Your task to perform on an android device: stop showing notifications on the lock screen Image 0: 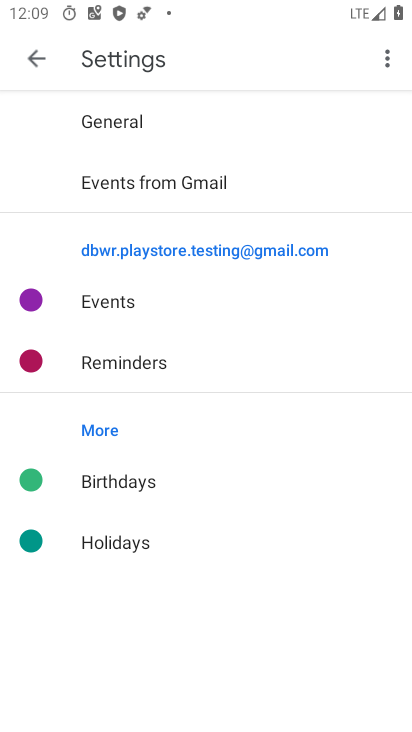
Step 0: press home button
Your task to perform on an android device: stop showing notifications on the lock screen Image 1: 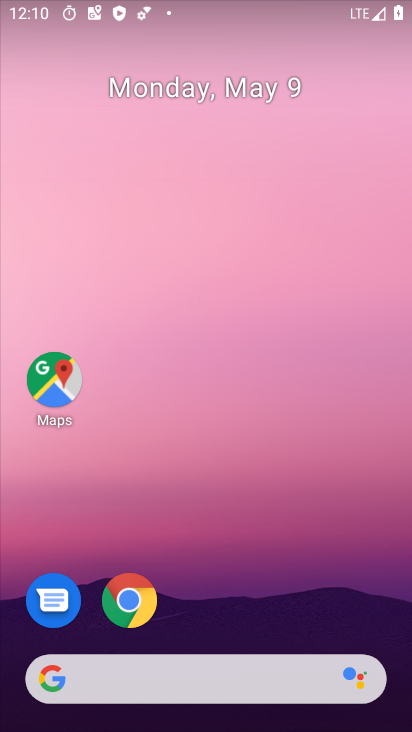
Step 1: drag from (264, 652) to (226, 380)
Your task to perform on an android device: stop showing notifications on the lock screen Image 2: 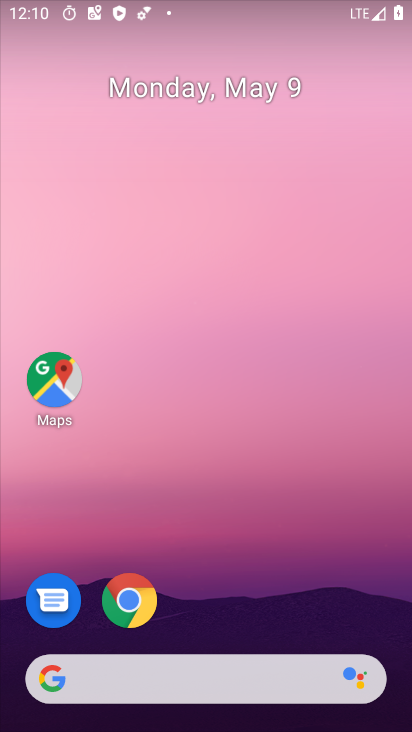
Step 2: drag from (259, 508) to (190, 26)
Your task to perform on an android device: stop showing notifications on the lock screen Image 3: 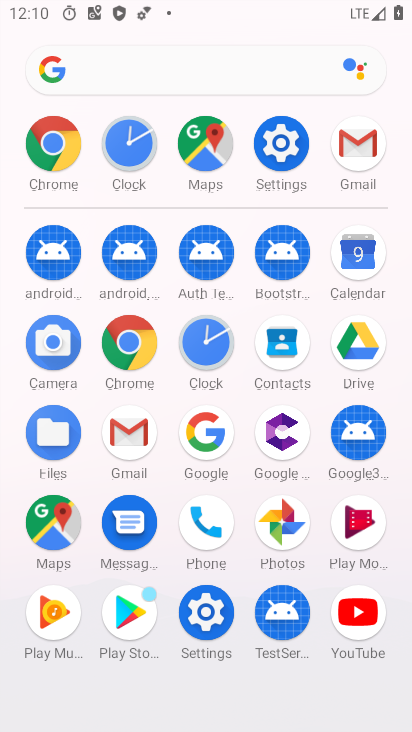
Step 3: click (287, 163)
Your task to perform on an android device: stop showing notifications on the lock screen Image 4: 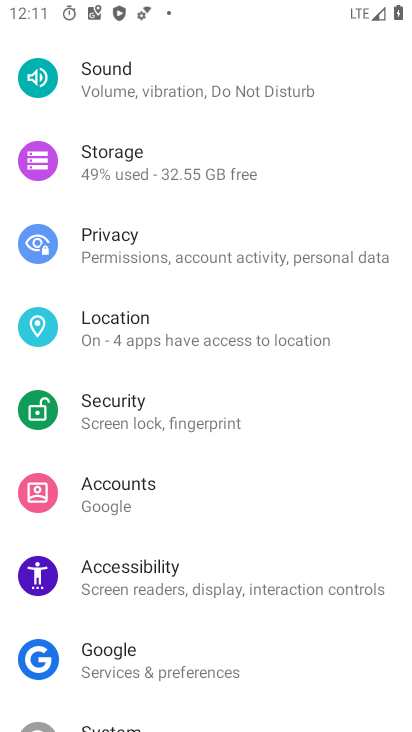
Step 4: drag from (123, 585) to (91, 717)
Your task to perform on an android device: stop showing notifications on the lock screen Image 5: 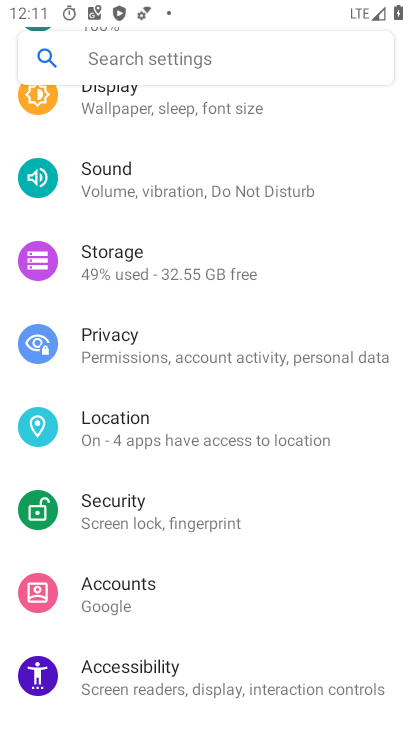
Step 5: drag from (170, 202) to (151, 648)
Your task to perform on an android device: stop showing notifications on the lock screen Image 6: 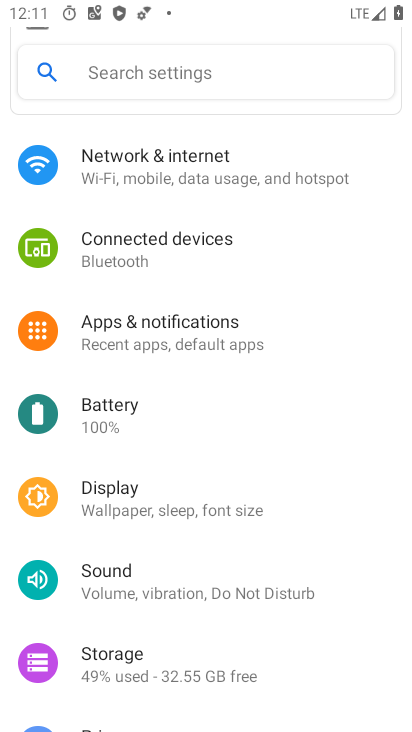
Step 6: click (172, 342)
Your task to perform on an android device: stop showing notifications on the lock screen Image 7: 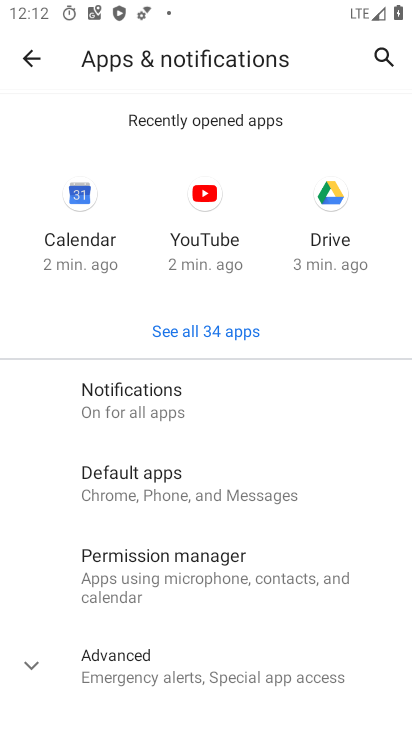
Step 7: click (234, 412)
Your task to perform on an android device: stop showing notifications on the lock screen Image 8: 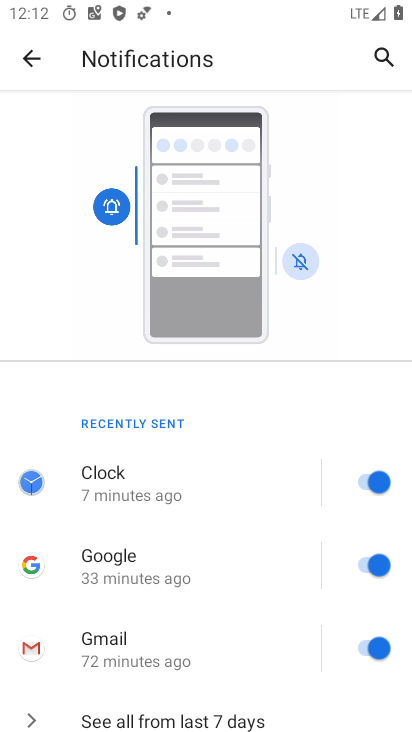
Step 8: drag from (173, 624) to (197, 233)
Your task to perform on an android device: stop showing notifications on the lock screen Image 9: 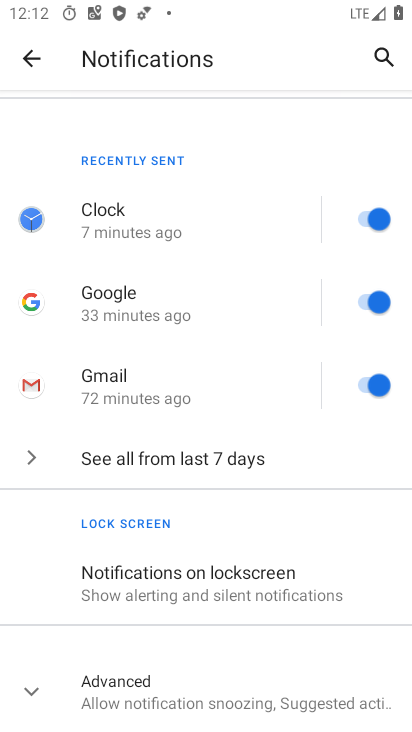
Step 9: click (167, 573)
Your task to perform on an android device: stop showing notifications on the lock screen Image 10: 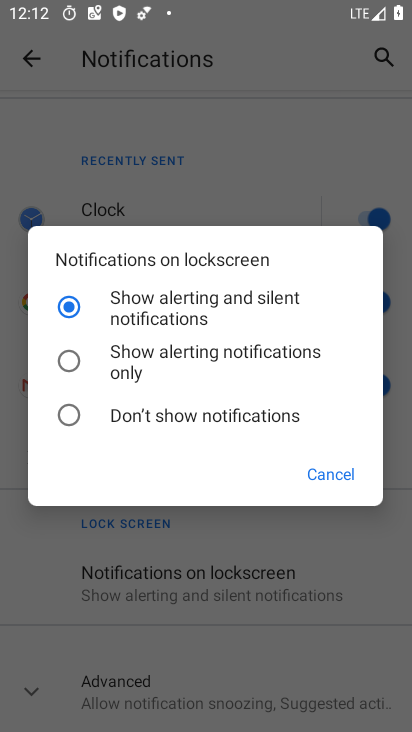
Step 10: click (189, 414)
Your task to perform on an android device: stop showing notifications on the lock screen Image 11: 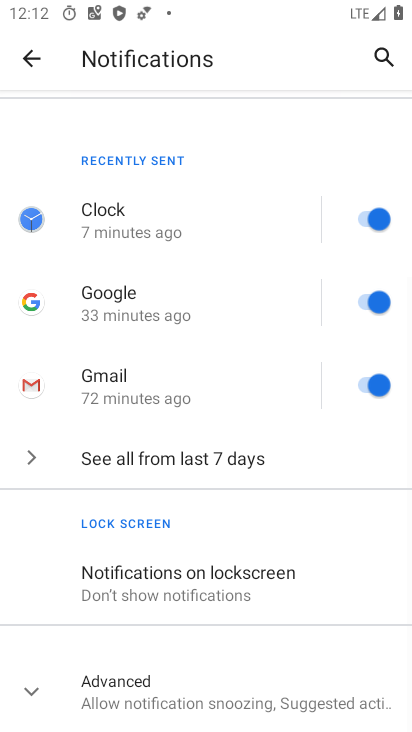
Step 11: task complete